Your task to perform on an android device: Go to Android settings Image 0: 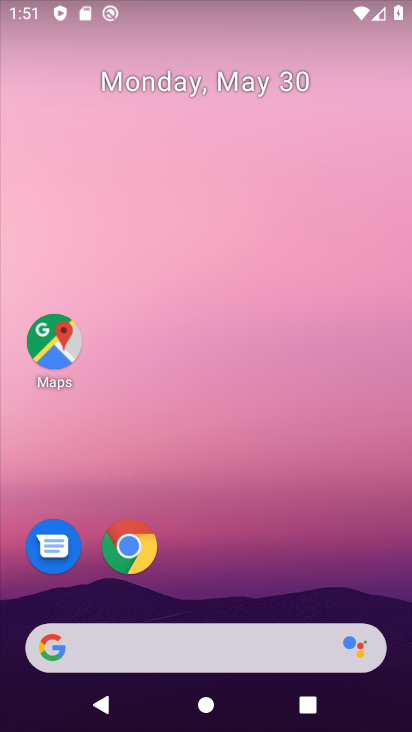
Step 0: press home button
Your task to perform on an android device: Go to Android settings Image 1: 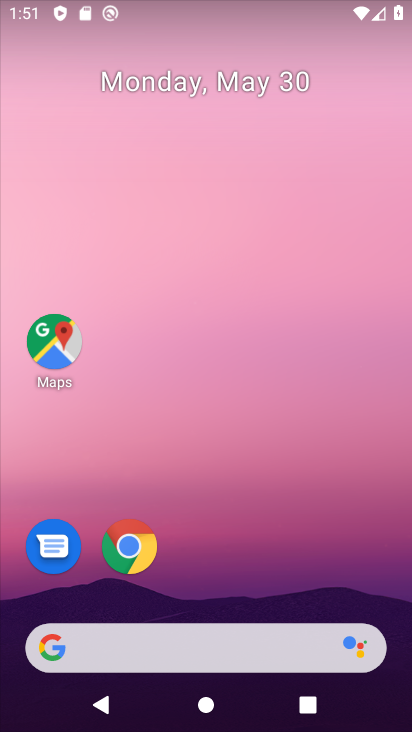
Step 1: drag from (232, 550) to (292, 58)
Your task to perform on an android device: Go to Android settings Image 2: 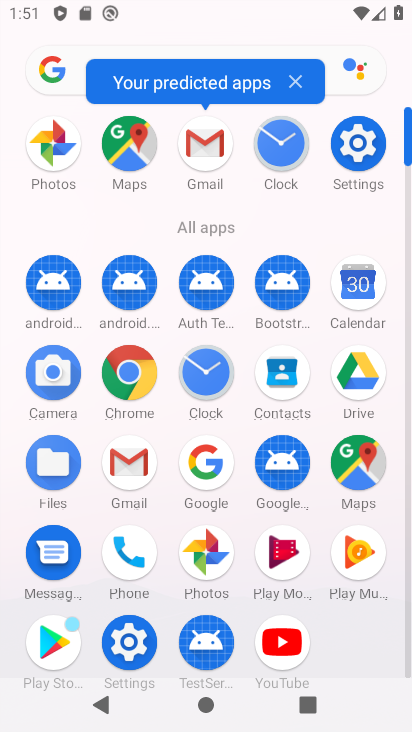
Step 2: click (133, 634)
Your task to perform on an android device: Go to Android settings Image 3: 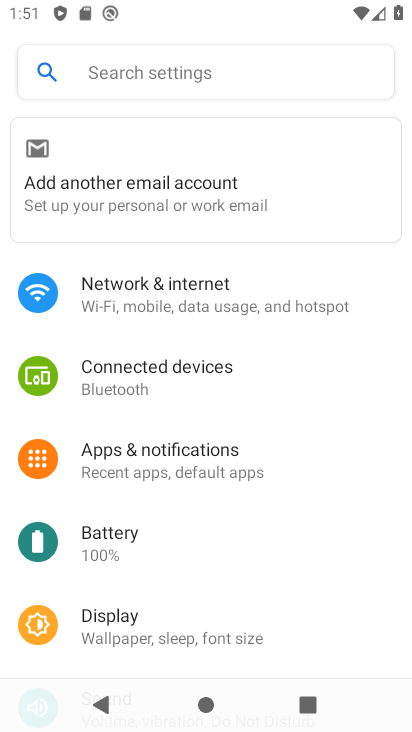
Step 3: drag from (180, 596) to (233, 88)
Your task to perform on an android device: Go to Android settings Image 4: 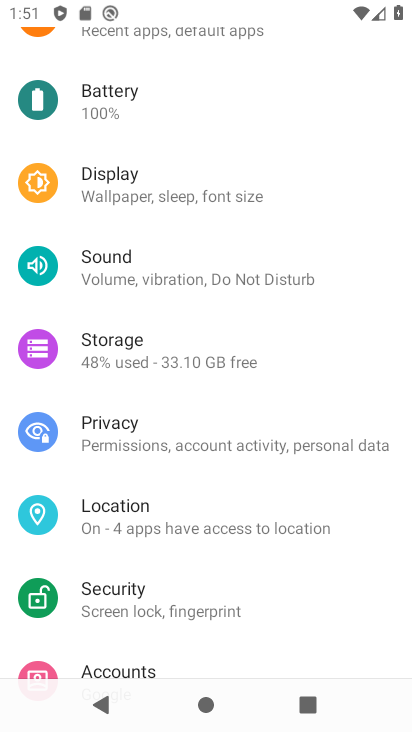
Step 4: click (209, 26)
Your task to perform on an android device: Go to Android settings Image 5: 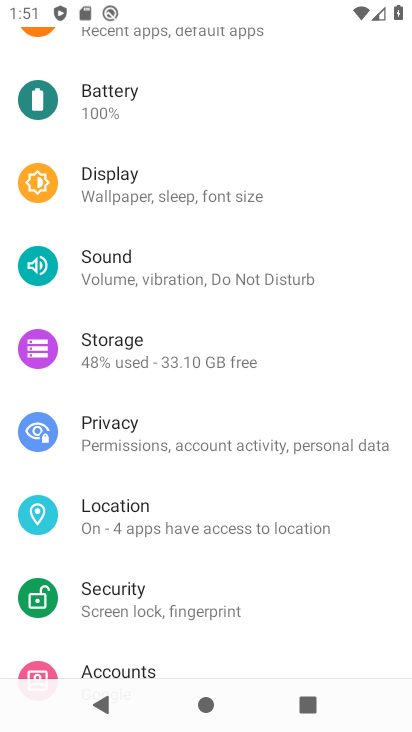
Step 5: drag from (186, 530) to (197, 31)
Your task to perform on an android device: Go to Android settings Image 6: 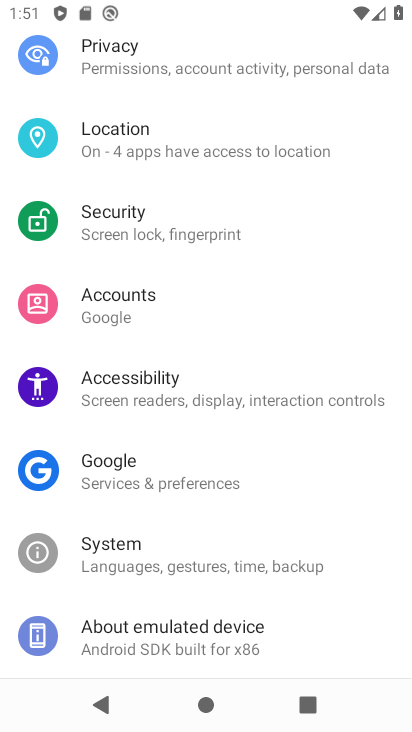
Step 6: click (150, 630)
Your task to perform on an android device: Go to Android settings Image 7: 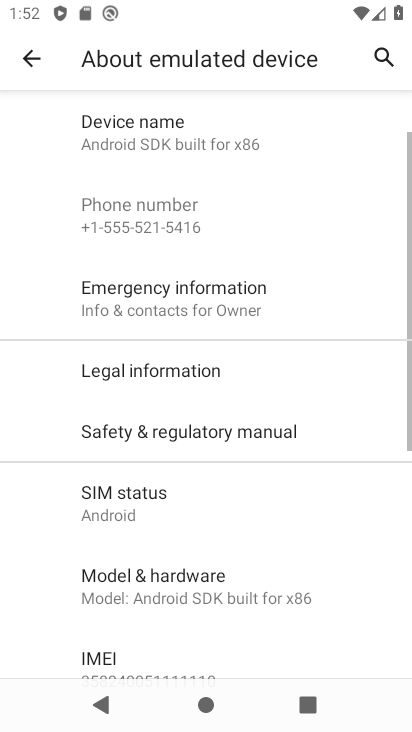
Step 7: drag from (166, 613) to (227, 57)
Your task to perform on an android device: Go to Android settings Image 8: 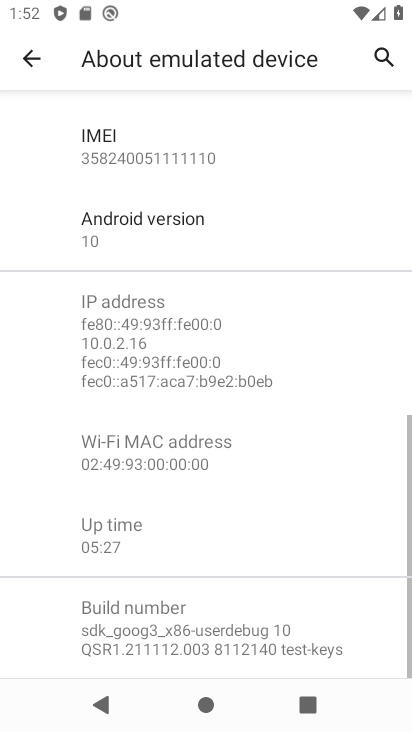
Step 8: click (167, 226)
Your task to perform on an android device: Go to Android settings Image 9: 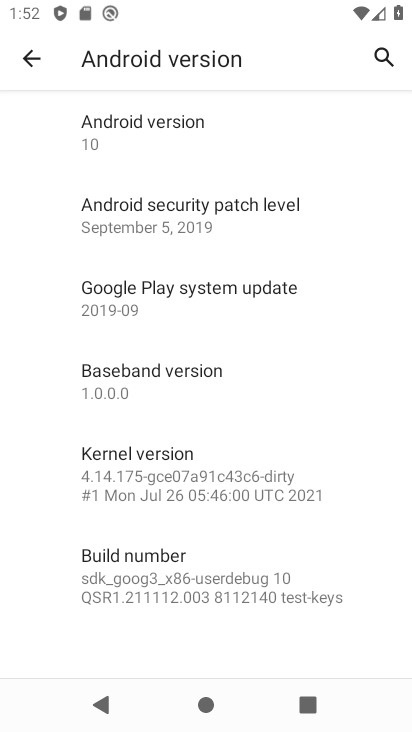
Step 9: task complete